Your task to perform on an android device: Open Yahoo.com Image 0: 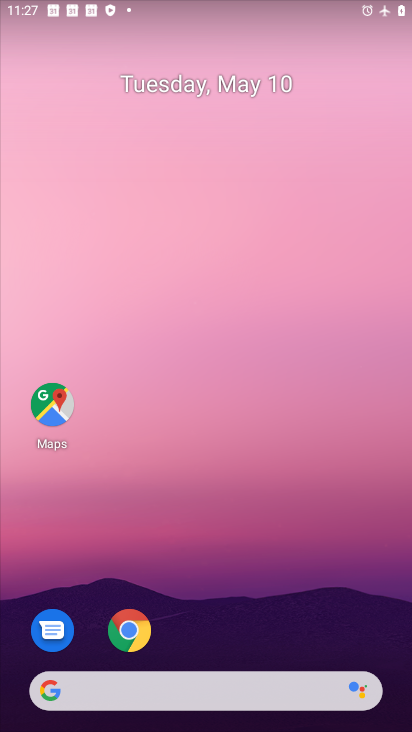
Step 0: click (226, 699)
Your task to perform on an android device: Open Yahoo.com Image 1: 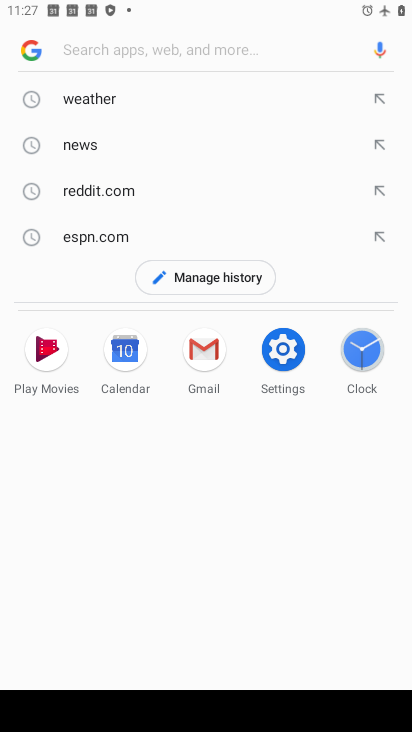
Step 1: type "yahoo.com"
Your task to perform on an android device: Open Yahoo.com Image 2: 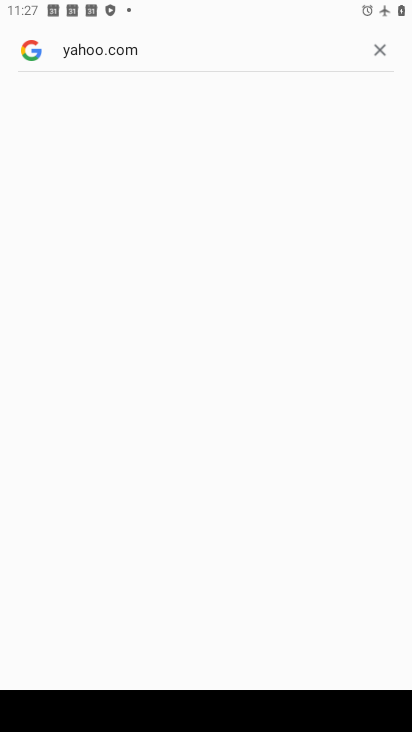
Step 2: task complete